Your task to perform on an android device: see creations saved in the google photos Image 0: 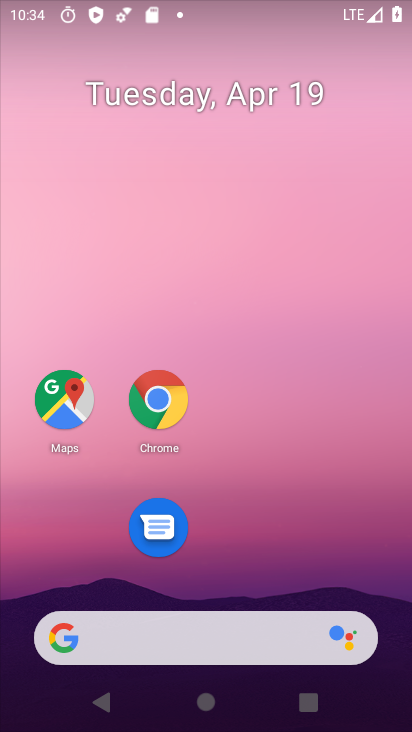
Step 0: click (329, 293)
Your task to perform on an android device: see creations saved in the google photos Image 1: 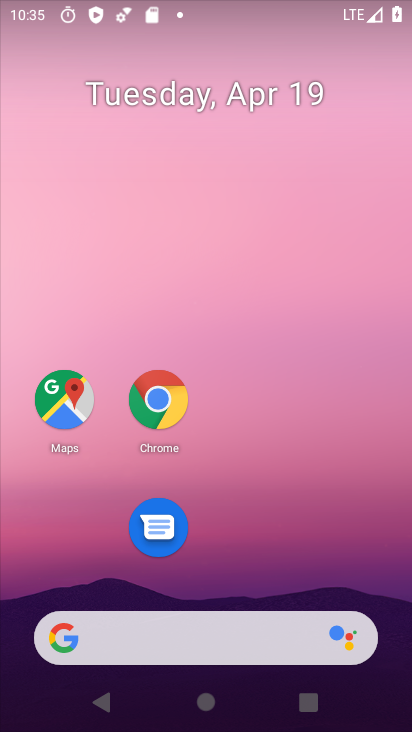
Step 1: drag from (220, 680) to (261, 159)
Your task to perform on an android device: see creations saved in the google photos Image 2: 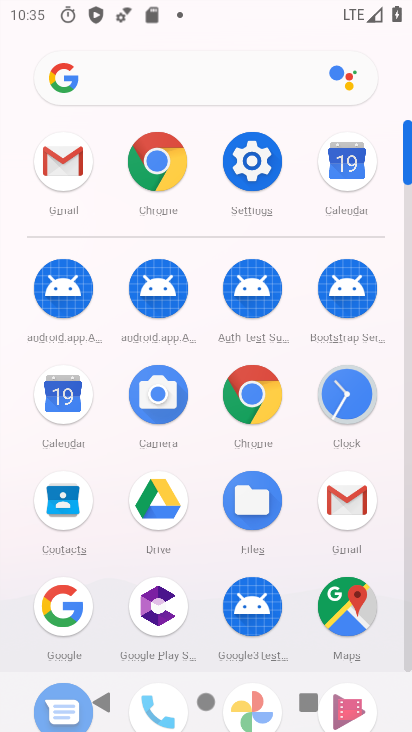
Step 2: drag from (201, 572) to (224, 458)
Your task to perform on an android device: see creations saved in the google photos Image 3: 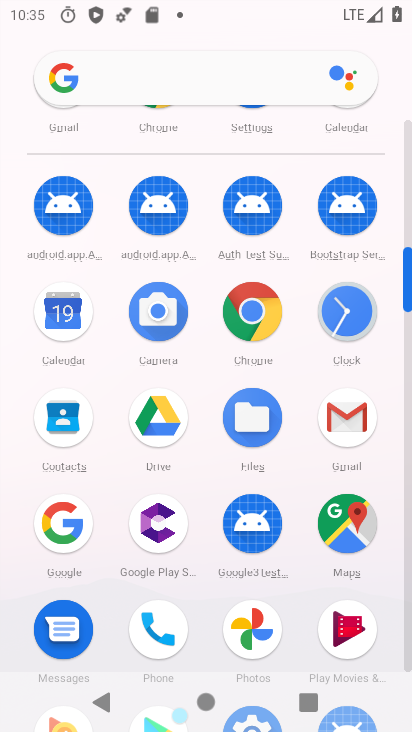
Step 3: click (251, 623)
Your task to perform on an android device: see creations saved in the google photos Image 4: 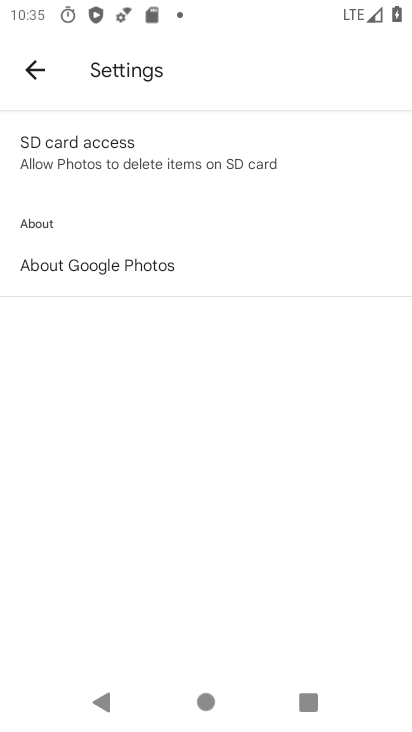
Step 4: click (31, 68)
Your task to perform on an android device: see creations saved in the google photos Image 5: 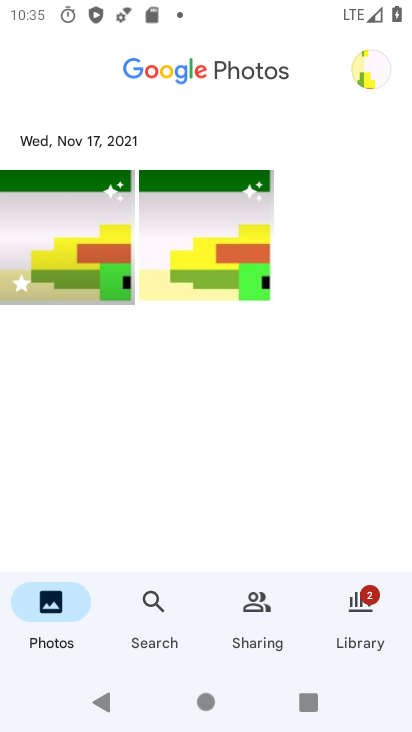
Step 5: click (240, 253)
Your task to perform on an android device: see creations saved in the google photos Image 6: 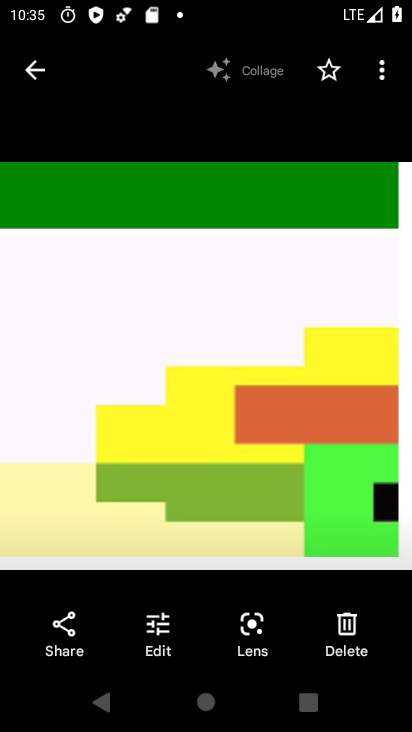
Step 6: click (385, 72)
Your task to perform on an android device: see creations saved in the google photos Image 7: 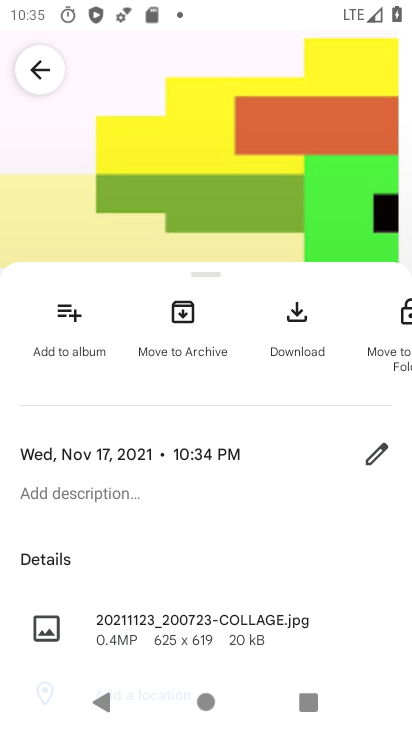
Step 7: task complete